Your task to perform on an android device: Open accessibility settings Image 0: 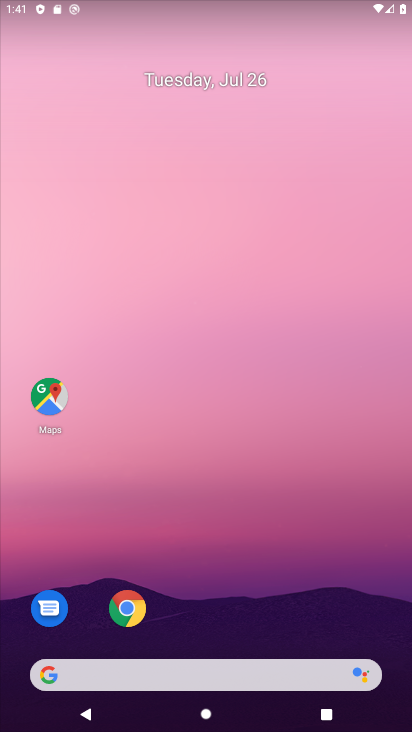
Step 0: drag from (248, 543) to (271, 125)
Your task to perform on an android device: Open accessibility settings Image 1: 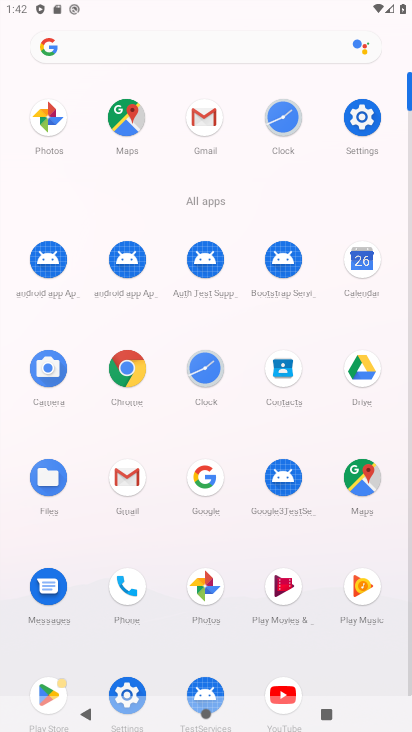
Step 1: click (351, 130)
Your task to perform on an android device: Open accessibility settings Image 2: 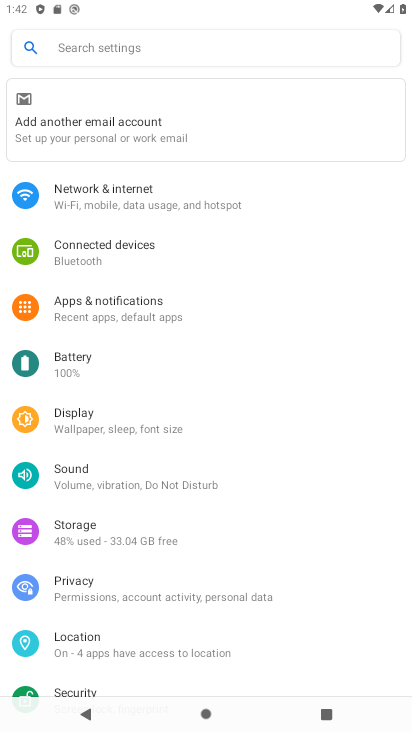
Step 2: drag from (196, 568) to (234, 333)
Your task to perform on an android device: Open accessibility settings Image 3: 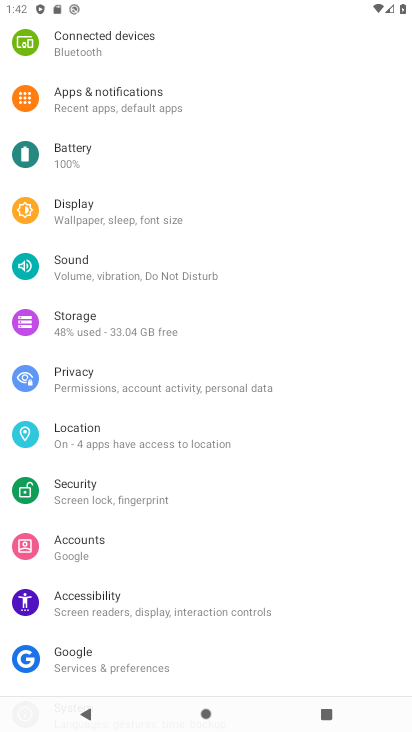
Step 3: click (121, 609)
Your task to perform on an android device: Open accessibility settings Image 4: 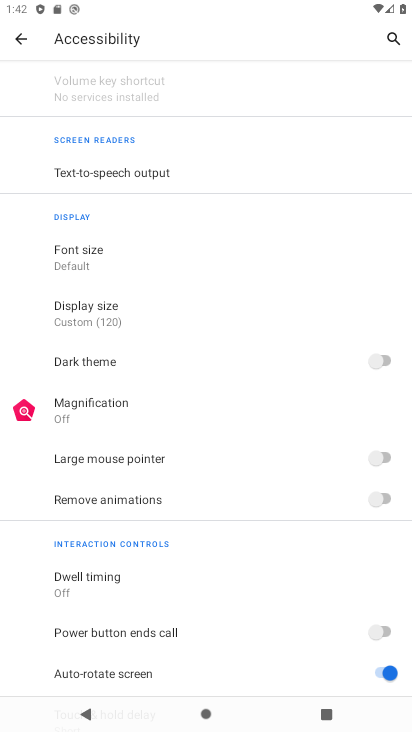
Step 4: task complete